Your task to perform on an android device: check out phone information Image 0: 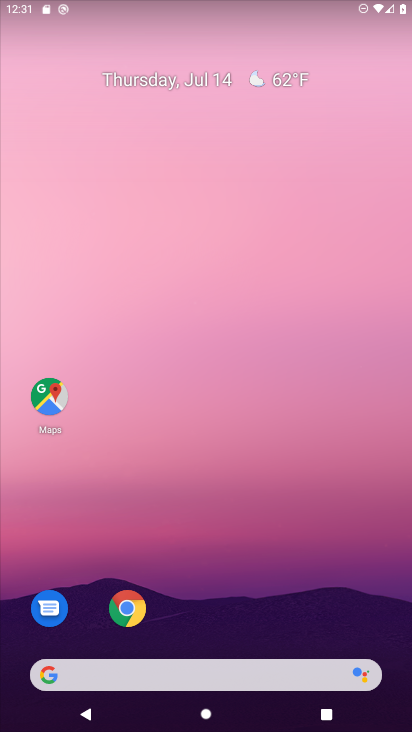
Step 0: drag from (235, 702) to (221, 132)
Your task to perform on an android device: check out phone information Image 1: 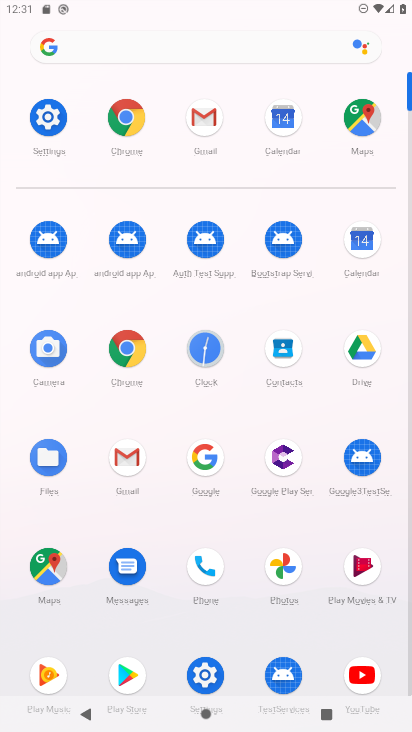
Step 1: click (45, 114)
Your task to perform on an android device: check out phone information Image 2: 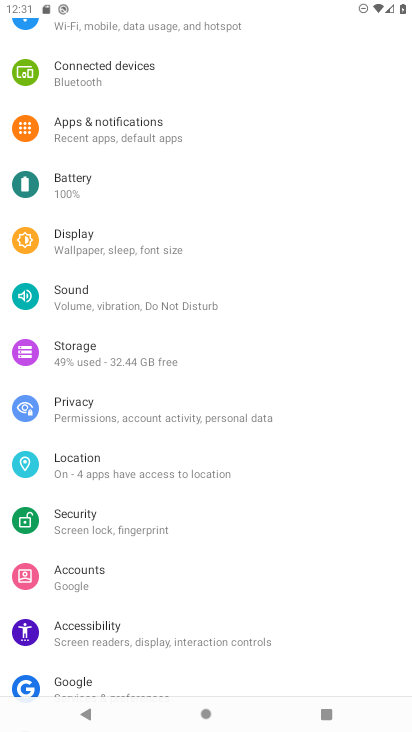
Step 2: drag from (173, 667) to (169, 258)
Your task to perform on an android device: check out phone information Image 3: 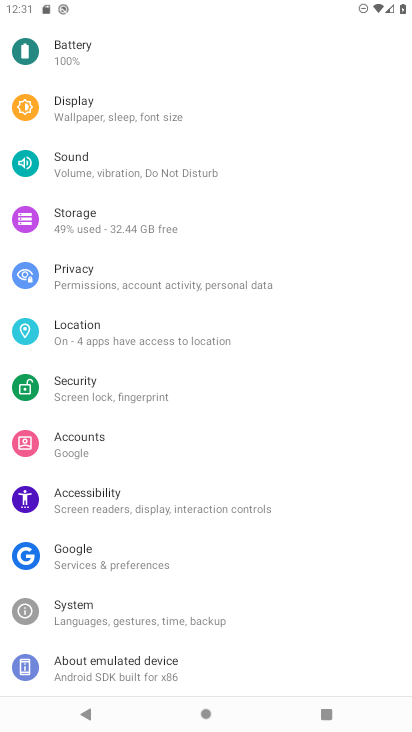
Step 3: click (116, 657)
Your task to perform on an android device: check out phone information Image 4: 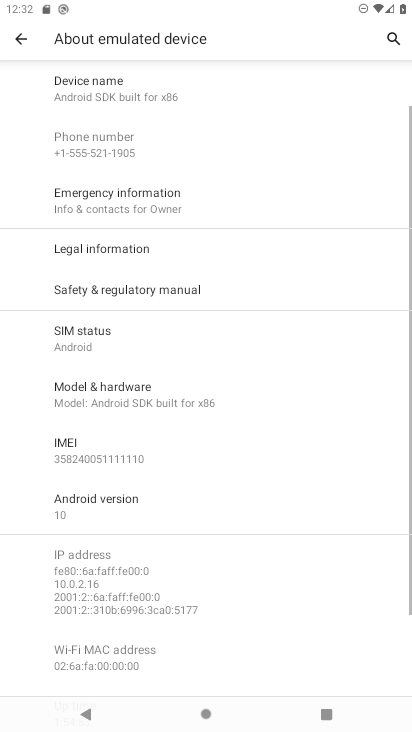
Step 4: task complete